Your task to perform on an android device: Open wifi settings Image 0: 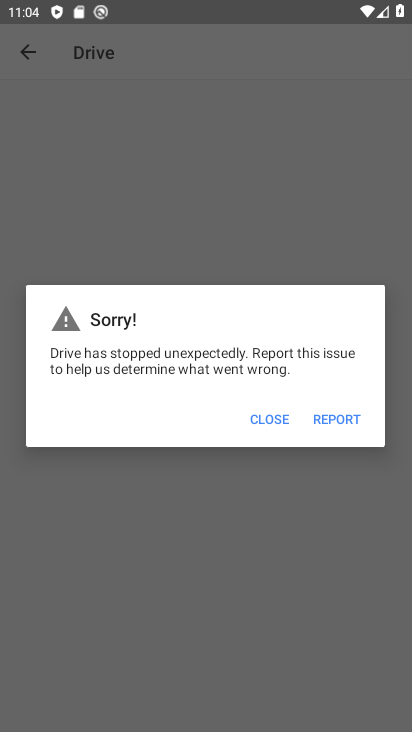
Step 0: press home button
Your task to perform on an android device: Open wifi settings Image 1: 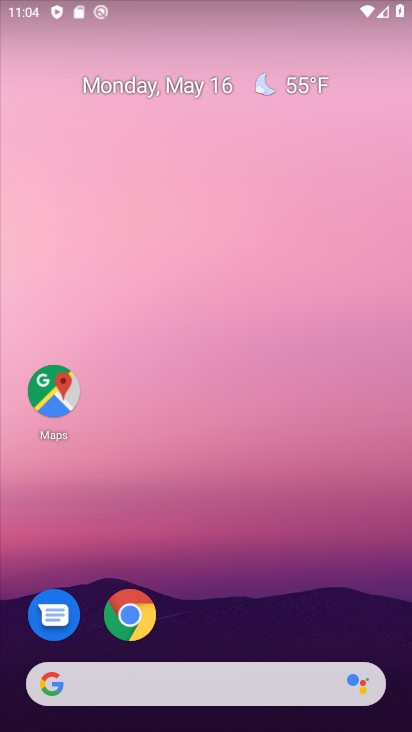
Step 1: task complete